Your task to perform on an android device: What's the news in Suriname? Image 0: 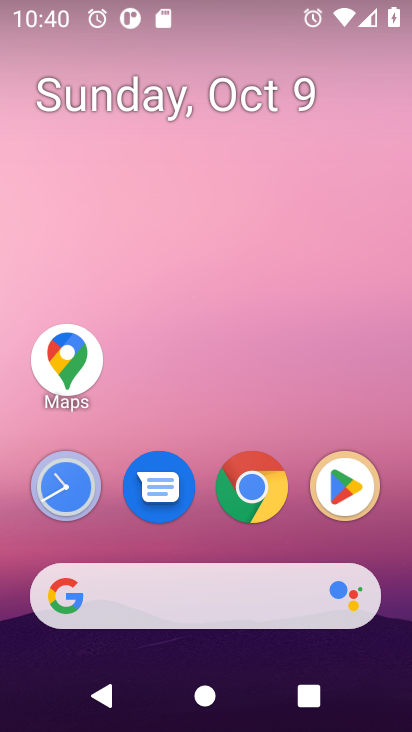
Step 0: drag from (210, 555) to (189, 25)
Your task to perform on an android device: What's the news in Suriname? Image 1: 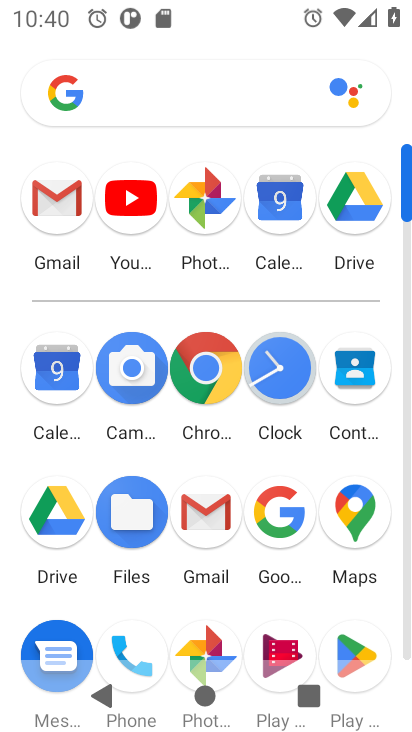
Step 1: click (278, 511)
Your task to perform on an android device: What's the news in Suriname? Image 2: 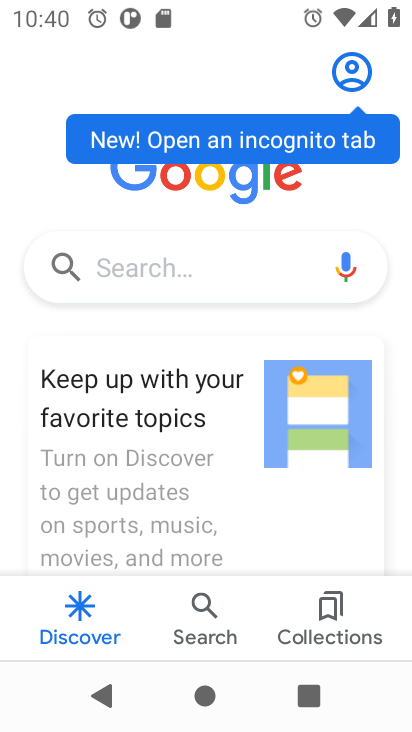
Step 2: click (199, 259)
Your task to perform on an android device: What's the news in Suriname? Image 3: 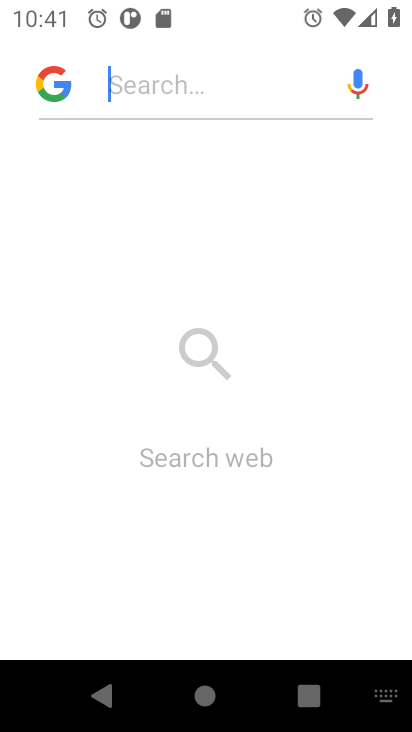
Step 3: type "What's the news in Suriname?"
Your task to perform on an android device: What's the news in Suriname? Image 4: 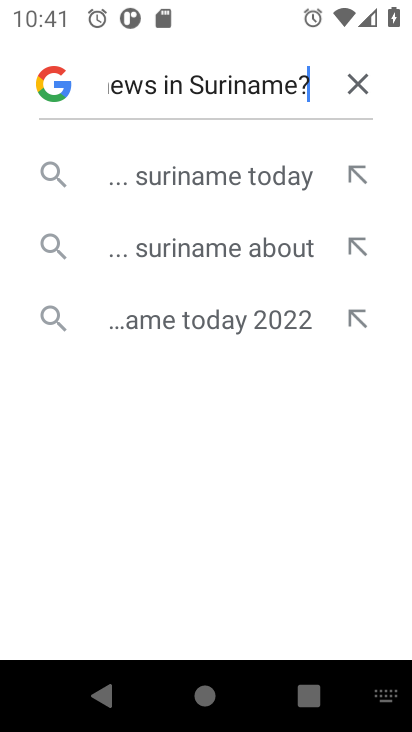
Step 4: type ""
Your task to perform on an android device: What's the news in Suriname? Image 5: 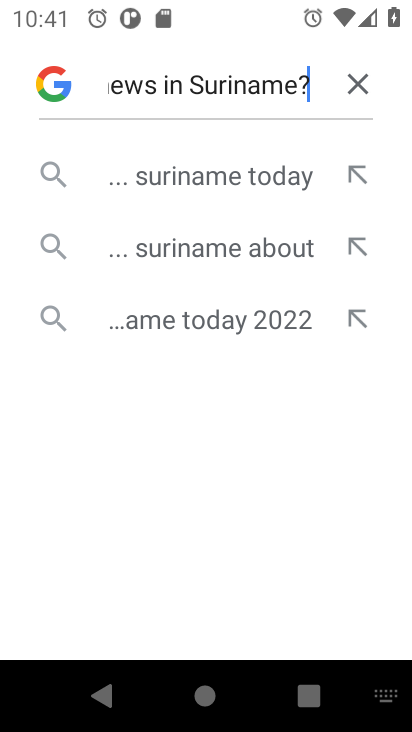
Step 5: click (190, 176)
Your task to perform on an android device: What's the news in Suriname? Image 6: 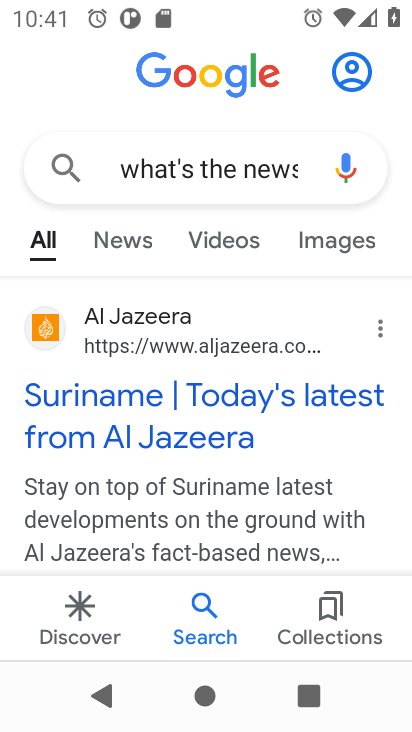
Step 6: click (124, 236)
Your task to perform on an android device: What's the news in Suriname? Image 7: 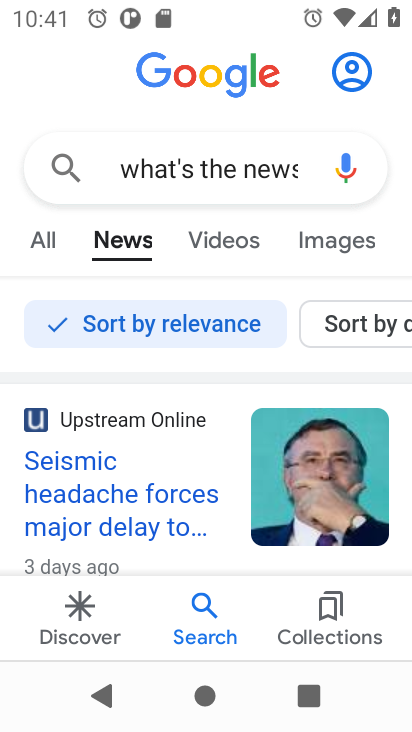
Step 7: task complete